Your task to perform on an android device: toggle wifi Image 0: 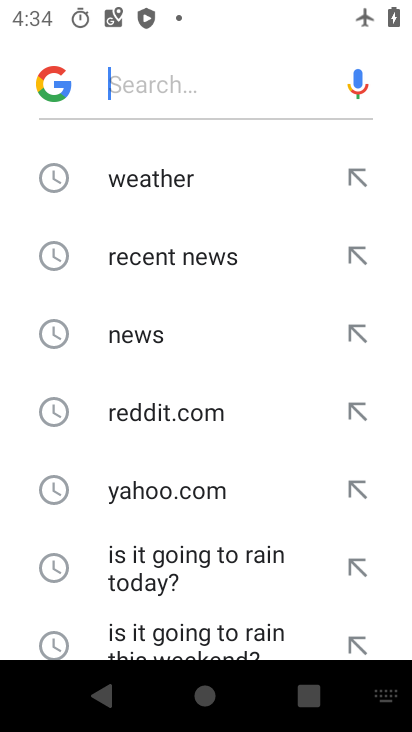
Step 0: press back button
Your task to perform on an android device: toggle wifi Image 1: 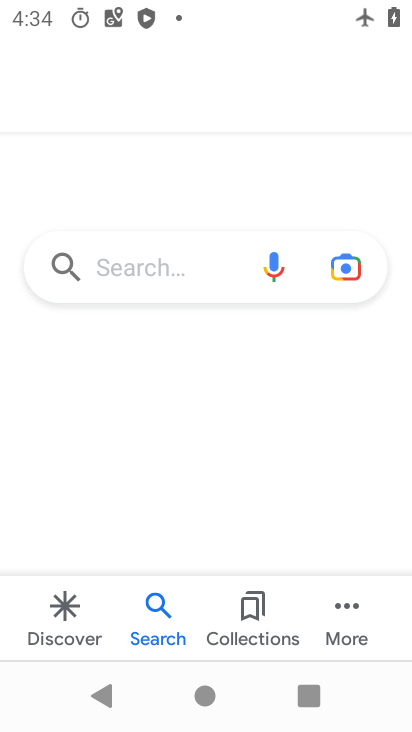
Step 1: press home button
Your task to perform on an android device: toggle wifi Image 2: 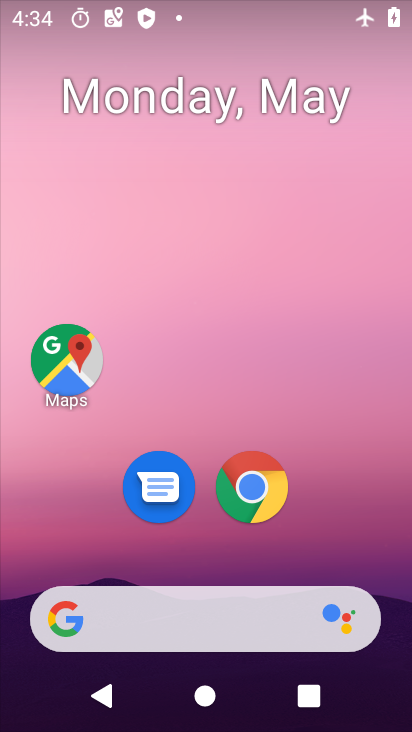
Step 2: drag from (175, 486) to (183, 169)
Your task to perform on an android device: toggle wifi Image 3: 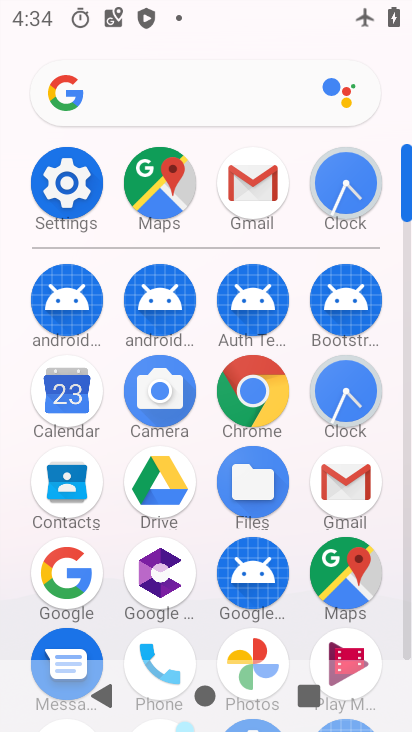
Step 3: click (72, 188)
Your task to perform on an android device: toggle wifi Image 4: 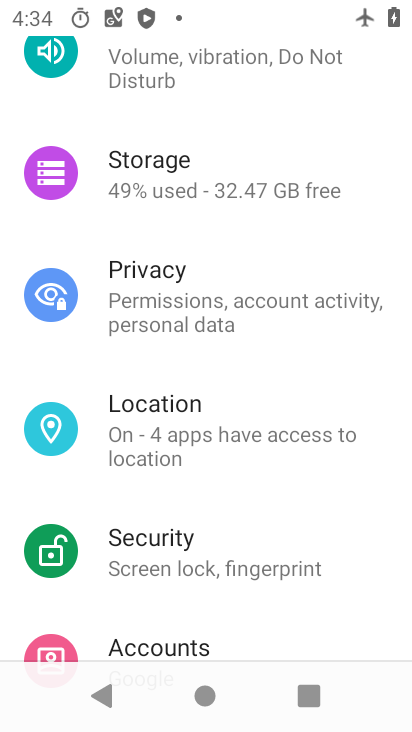
Step 4: drag from (187, 136) to (172, 546)
Your task to perform on an android device: toggle wifi Image 5: 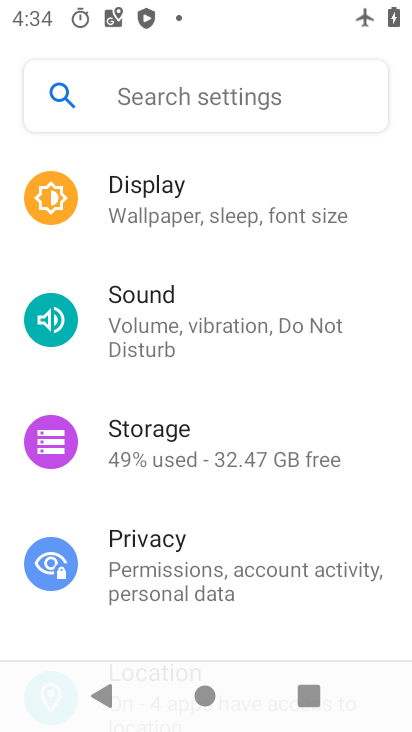
Step 5: drag from (164, 143) to (122, 561)
Your task to perform on an android device: toggle wifi Image 6: 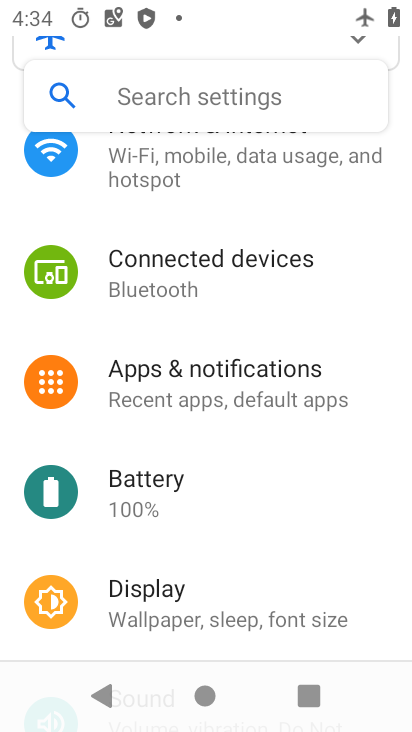
Step 6: drag from (174, 163) to (135, 534)
Your task to perform on an android device: toggle wifi Image 7: 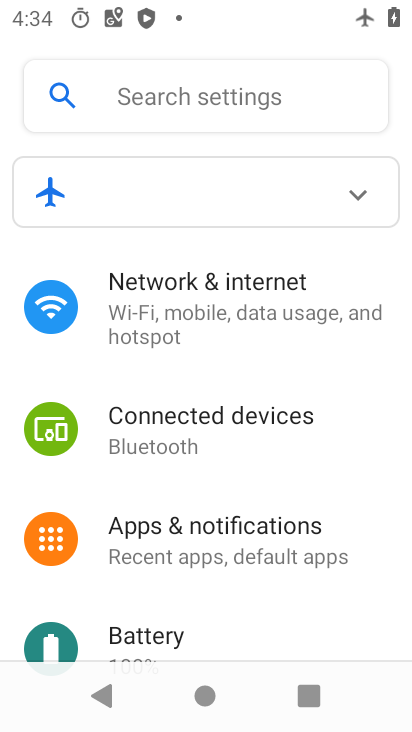
Step 7: click (161, 324)
Your task to perform on an android device: toggle wifi Image 8: 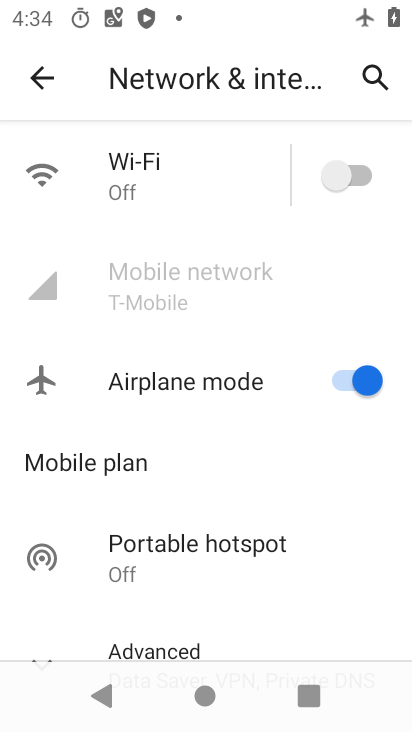
Step 8: click (159, 174)
Your task to perform on an android device: toggle wifi Image 9: 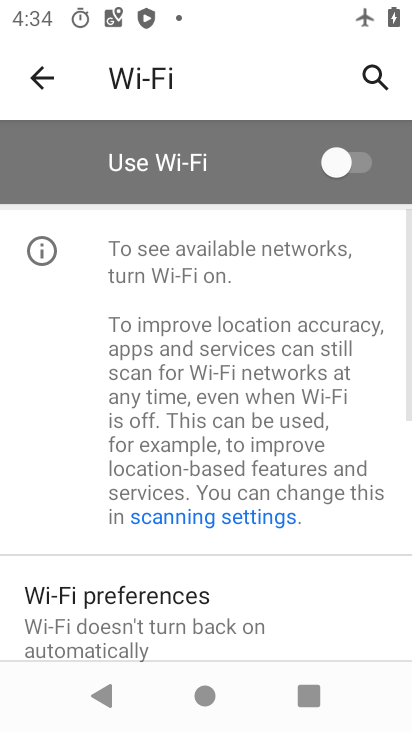
Step 9: click (361, 166)
Your task to perform on an android device: toggle wifi Image 10: 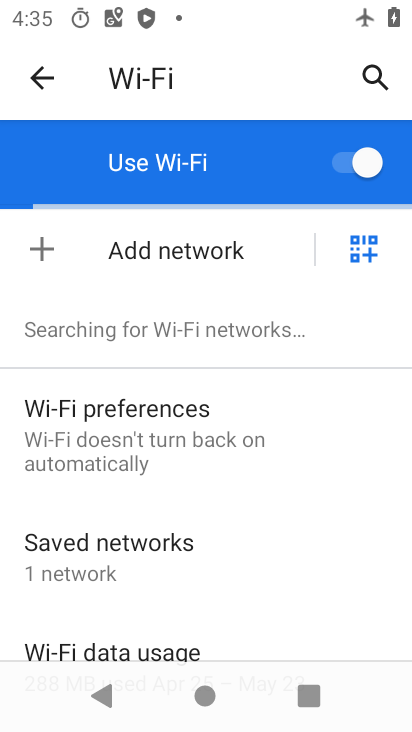
Step 10: task complete